Your task to perform on an android device: Go to settings Image 0: 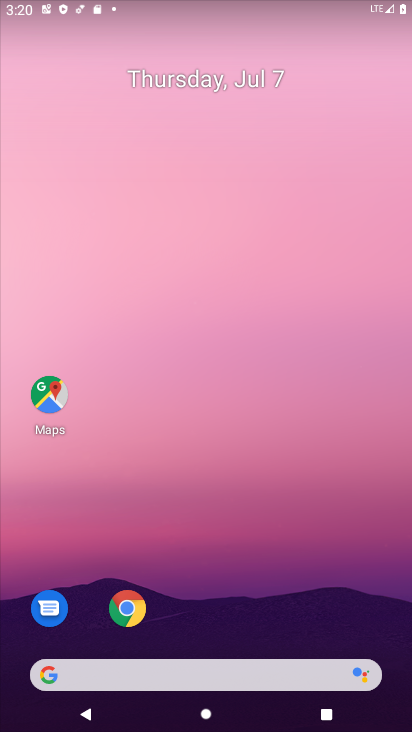
Step 0: drag from (373, 599) to (294, 137)
Your task to perform on an android device: Go to settings Image 1: 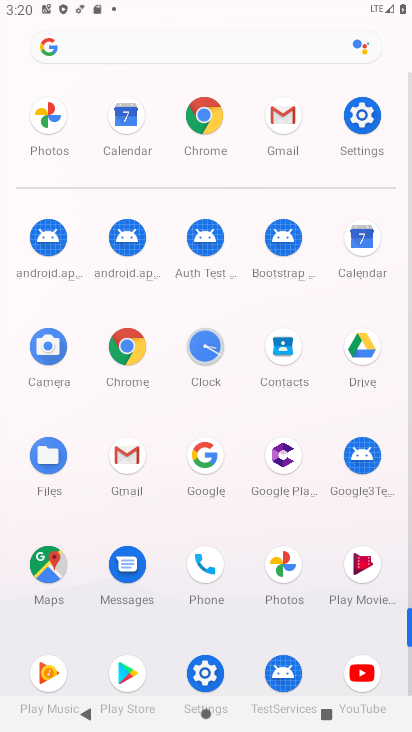
Step 1: click (207, 672)
Your task to perform on an android device: Go to settings Image 2: 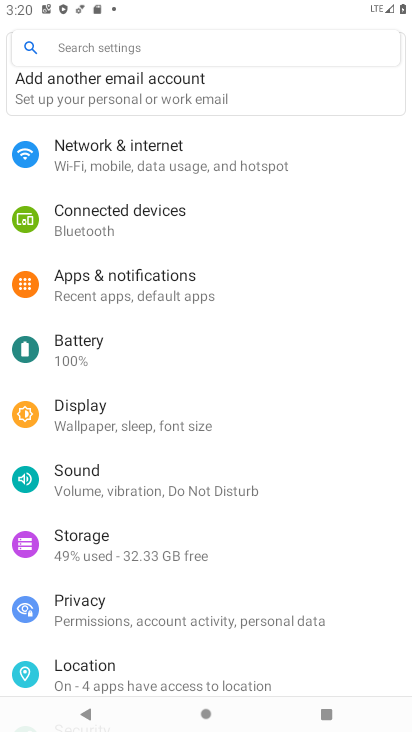
Step 2: task complete